Your task to perform on an android device: check the backup settings in the google photos Image 0: 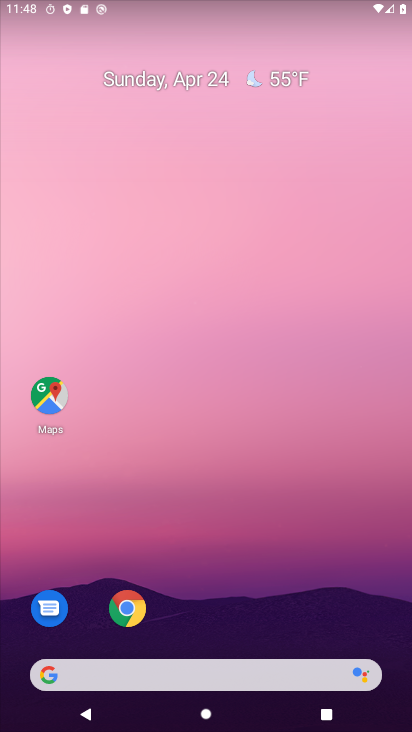
Step 0: drag from (199, 580) to (229, 137)
Your task to perform on an android device: check the backup settings in the google photos Image 1: 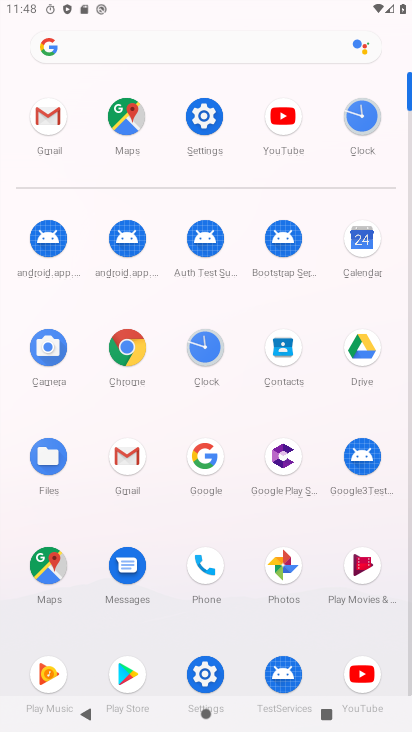
Step 1: click (289, 558)
Your task to perform on an android device: check the backup settings in the google photos Image 2: 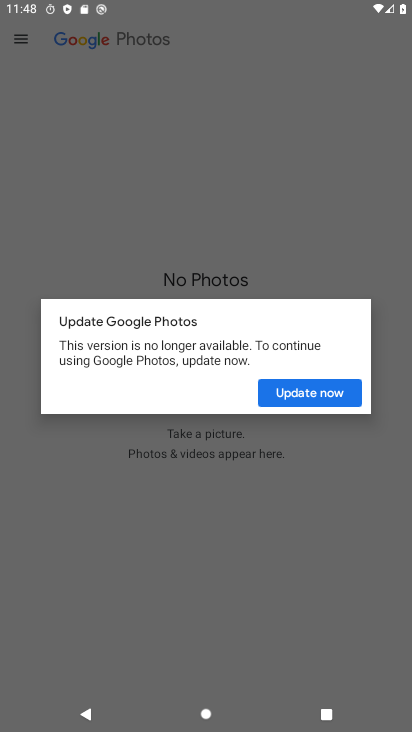
Step 2: click (307, 383)
Your task to perform on an android device: check the backup settings in the google photos Image 3: 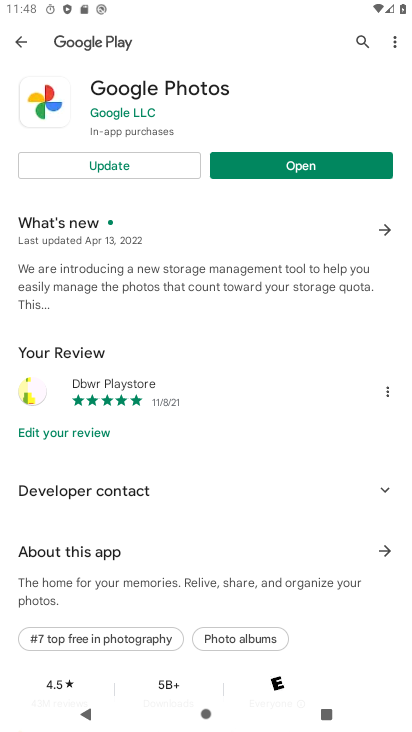
Step 3: click (296, 170)
Your task to perform on an android device: check the backup settings in the google photos Image 4: 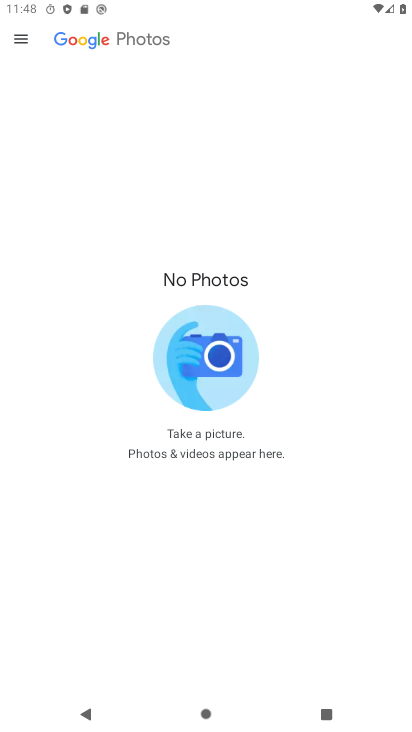
Step 4: click (19, 33)
Your task to perform on an android device: check the backup settings in the google photos Image 5: 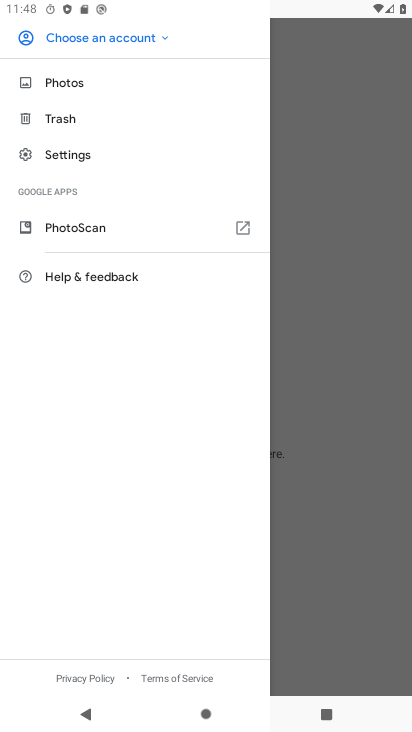
Step 5: click (67, 150)
Your task to perform on an android device: check the backup settings in the google photos Image 6: 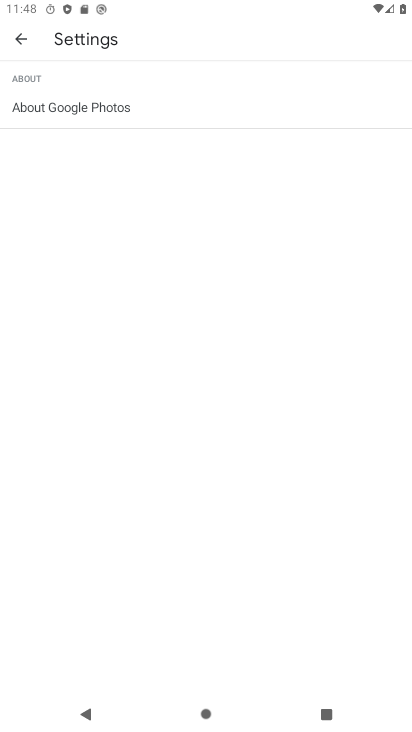
Step 6: task complete